Your task to perform on an android device: turn vacation reply on in the gmail app Image 0: 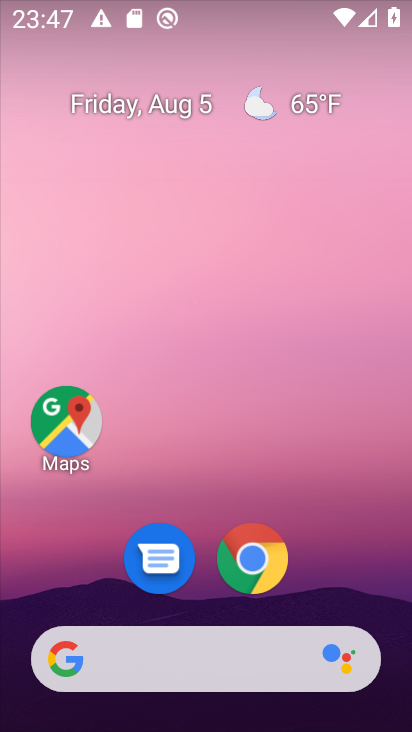
Step 0: press home button
Your task to perform on an android device: turn vacation reply on in the gmail app Image 1: 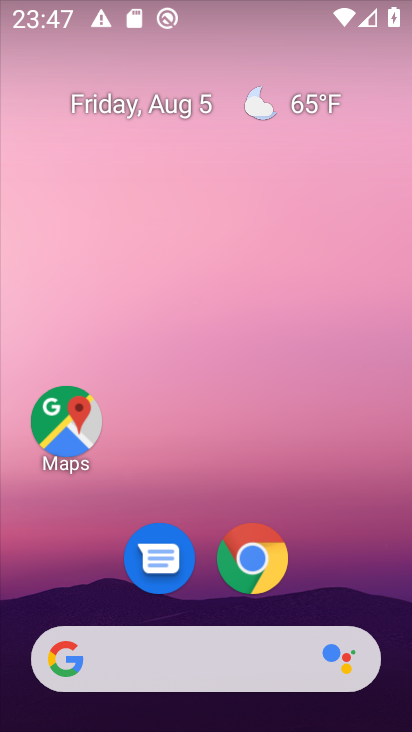
Step 1: drag from (328, 585) to (352, 275)
Your task to perform on an android device: turn vacation reply on in the gmail app Image 2: 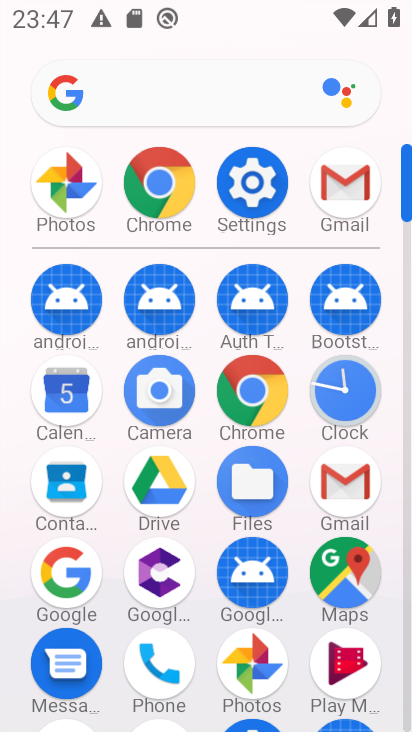
Step 2: click (351, 479)
Your task to perform on an android device: turn vacation reply on in the gmail app Image 3: 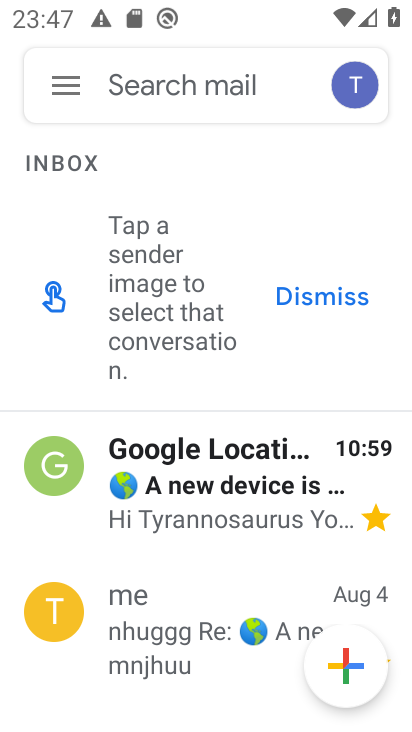
Step 3: click (68, 83)
Your task to perform on an android device: turn vacation reply on in the gmail app Image 4: 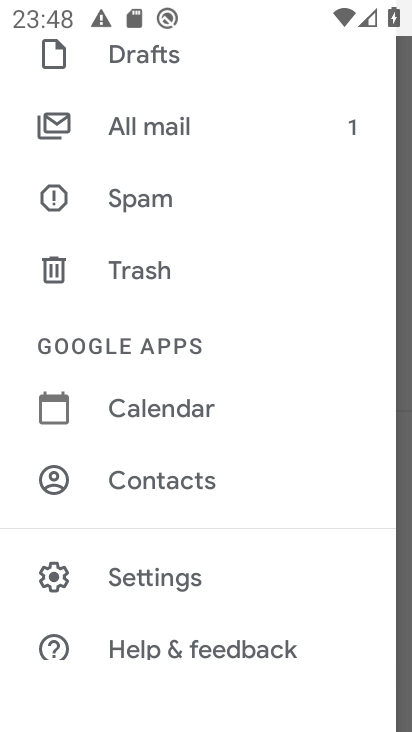
Step 4: click (205, 571)
Your task to perform on an android device: turn vacation reply on in the gmail app Image 5: 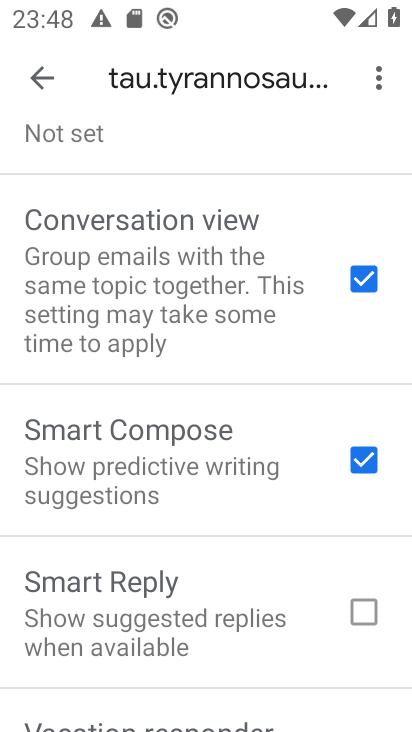
Step 5: drag from (289, 275) to (298, 390)
Your task to perform on an android device: turn vacation reply on in the gmail app Image 6: 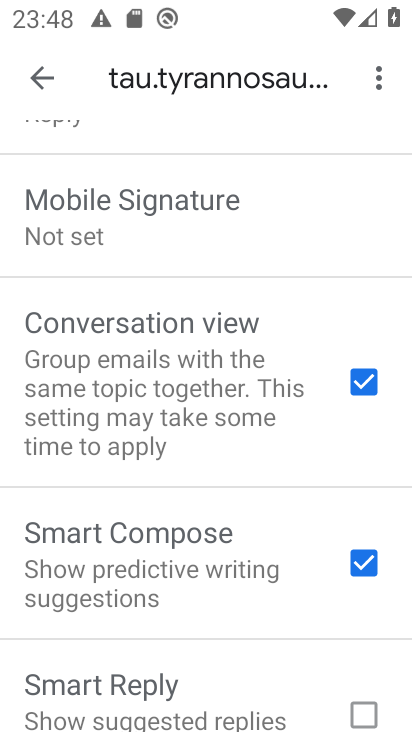
Step 6: drag from (300, 204) to (308, 325)
Your task to perform on an android device: turn vacation reply on in the gmail app Image 7: 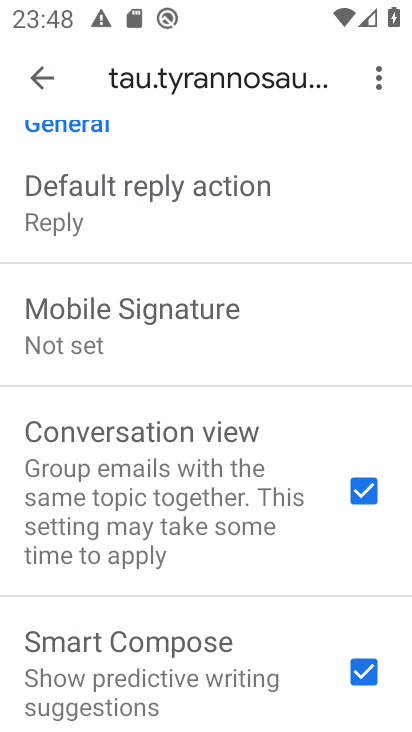
Step 7: drag from (321, 188) to (336, 317)
Your task to perform on an android device: turn vacation reply on in the gmail app Image 8: 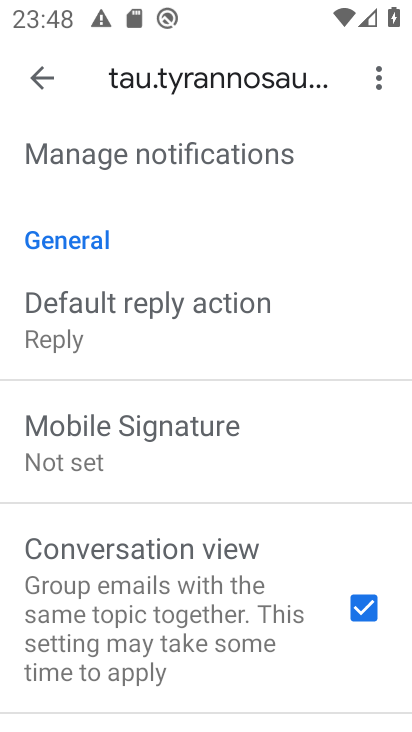
Step 8: drag from (327, 210) to (342, 348)
Your task to perform on an android device: turn vacation reply on in the gmail app Image 9: 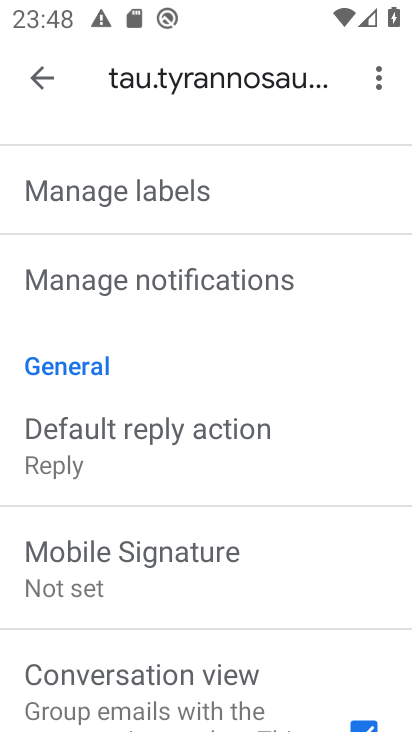
Step 9: drag from (337, 157) to (348, 344)
Your task to perform on an android device: turn vacation reply on in the gmail app Image 10: 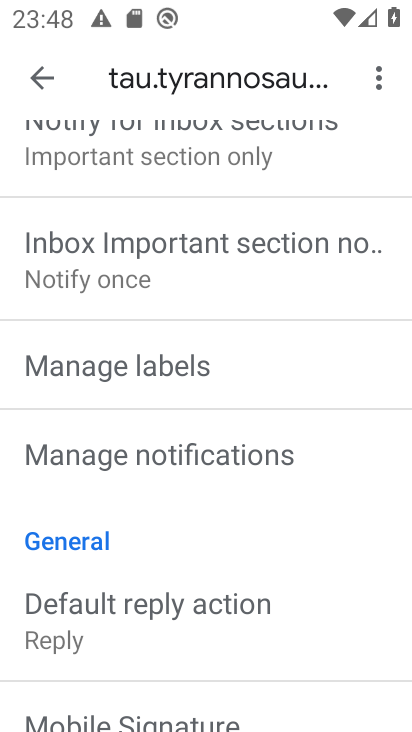
Step 10: drag from (332, 172) to (339, 370)
Your task to perform on an android device: turn vacation reply on in the gmail app Image 11: 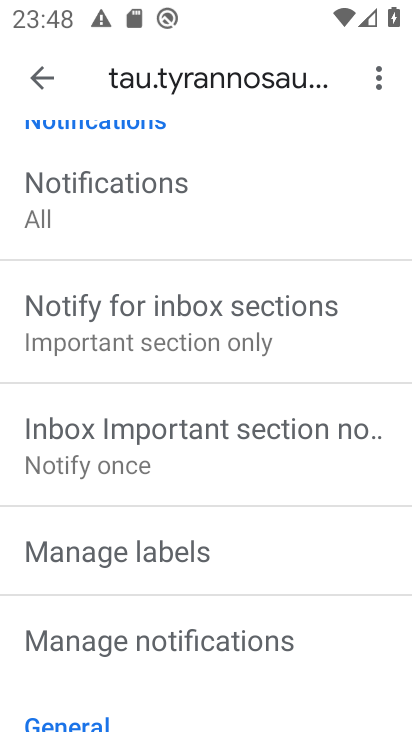
Step 11: drag from (337, 172) to (339, 363)
Your task to perform on an android device: turn vacation reply on in the gmail app Image 12: 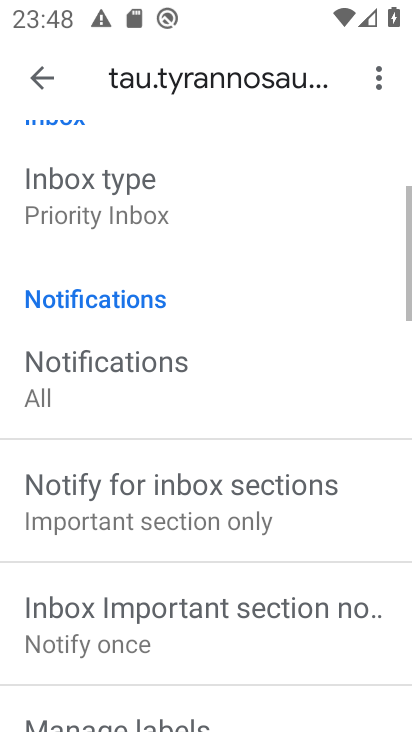
Step 12: drag from (331, 384) to (338, 276)
Your task to perform on an android device: turn vacation reply on in the gmail app Image 13: 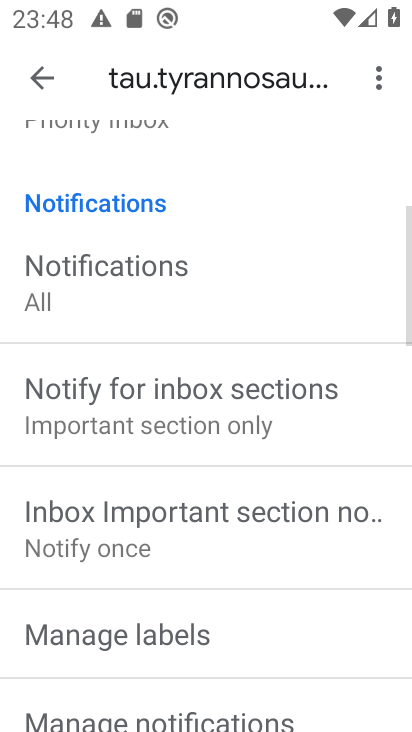
Step 13: drag from (311, 433) to (328, 318)
Your task to perform on an android device: turn vacation reply on in the gmail app Image 14: 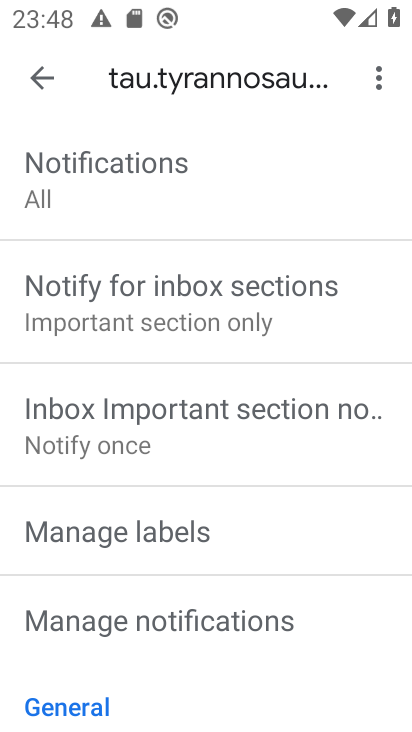
Step 14: drag from (309, 497) to (313, 399)
Your task to perform on an android device: turn vacation reply on in the gmail app Image 15: 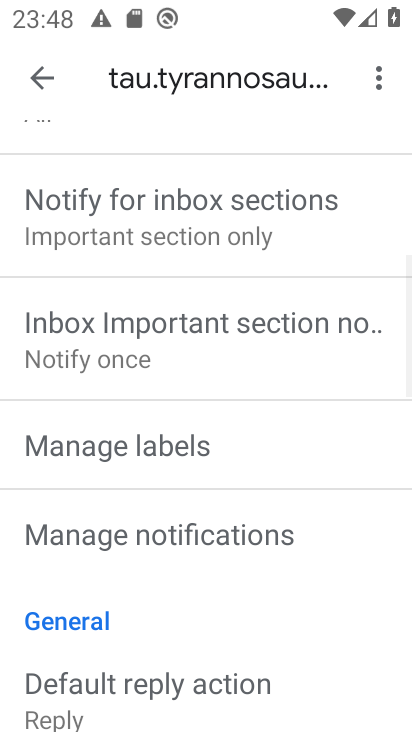
Step 15: drag from (289, 518) to (305, 393)
Your task to perform on an android device: turn vacation reply on in the gmail app Image 16: 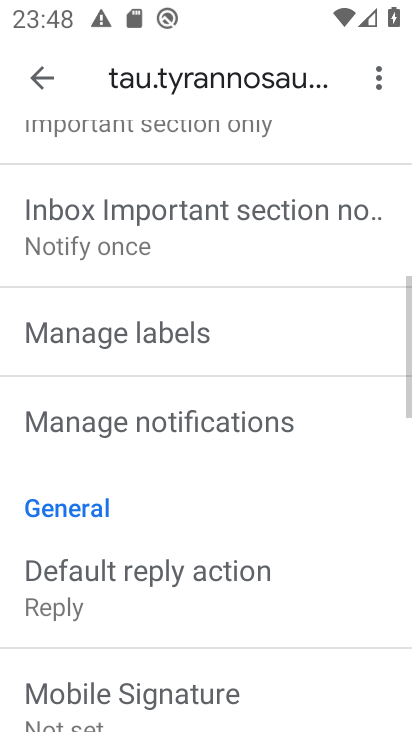
Step 16: drag from (293, 510) to (301, 390)
Your task to perform on an android device: turn vacation reply on in the gmail app Image 17: 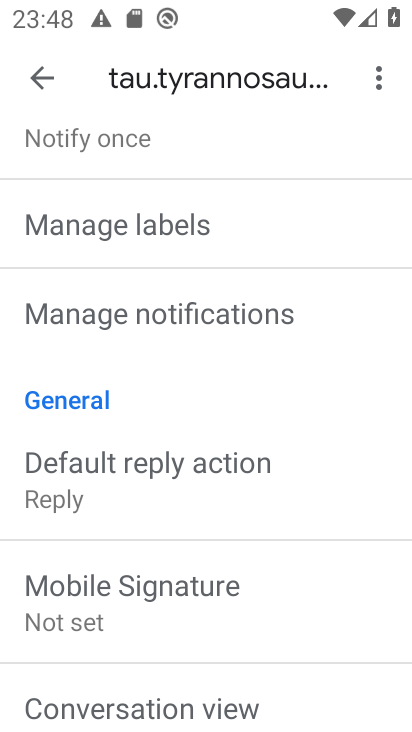
Step 17: drag from (291, 532) to (307, 393)
Your task to perform on an android device: turn vacation reply on in the gmail app Image 18: 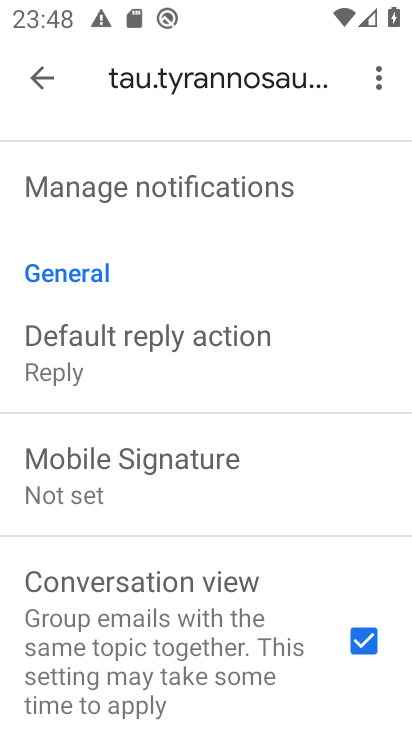
Step 18: drag from (273, 545) to (303, 324)
Your task to perform on an android device: turn vacation reply on in the gmail app Image 19: 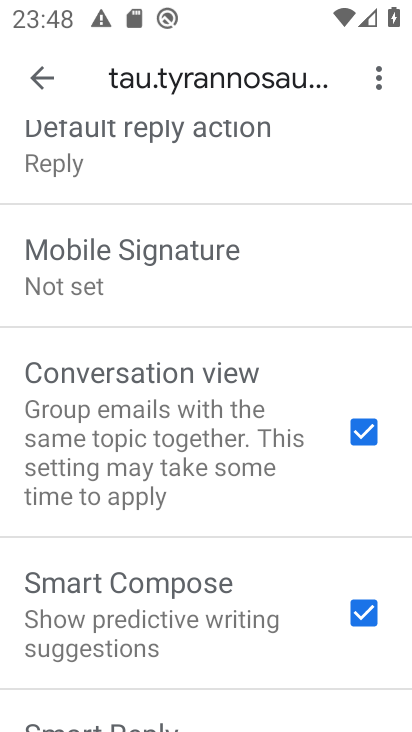
Step 19: drag from (280, 539) to (284, 365)
Your task to perform on an android device: turn vacation reply on in the gmail app Image 20: 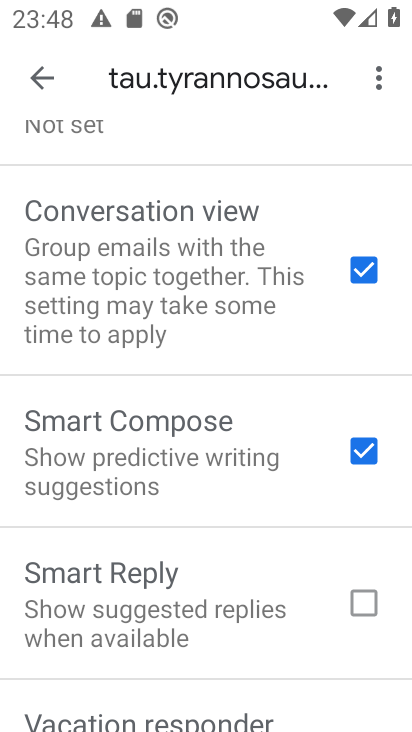
Step 20: drag from (254, 553) to (262, 380)
Your task to perform on an android device: turn vacation reply on in the gmail app Image 21: 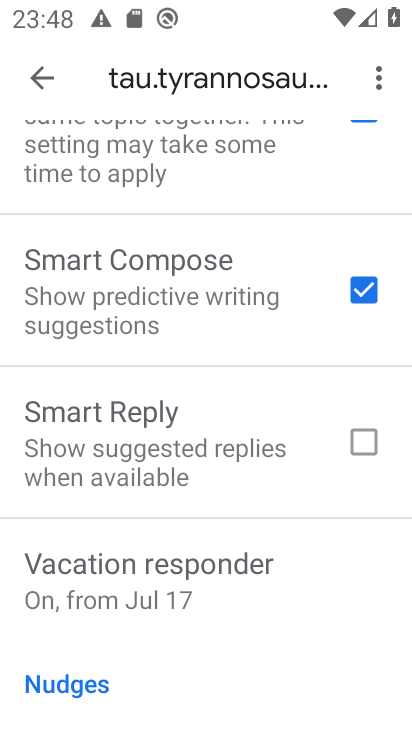
Step 21: click (247, 563)
Your task to perform on an android device: turn vacation reply on in the gmail app Image 22: 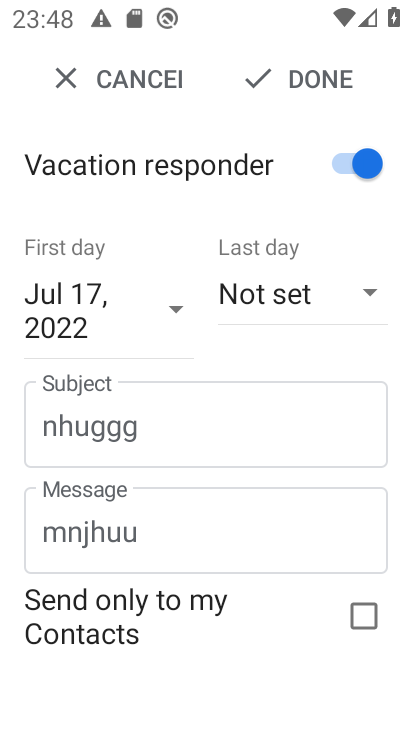
Step 22: task complete